Your task to perform on an android device: Show me recent news Image 0: 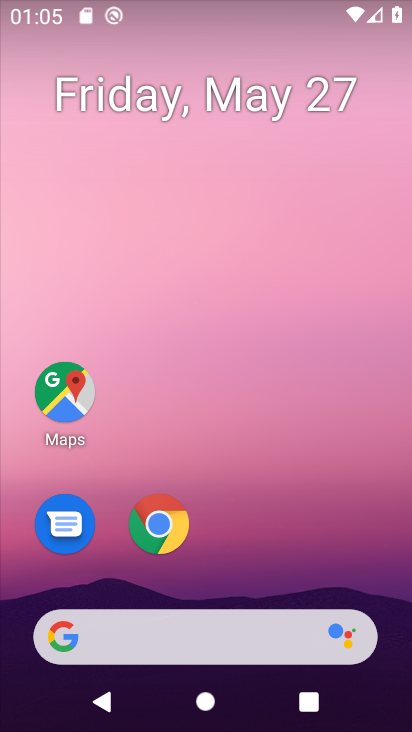
Step 0: click (265, 530)
Your task to perform on an android device: Show me recent news Image 1: 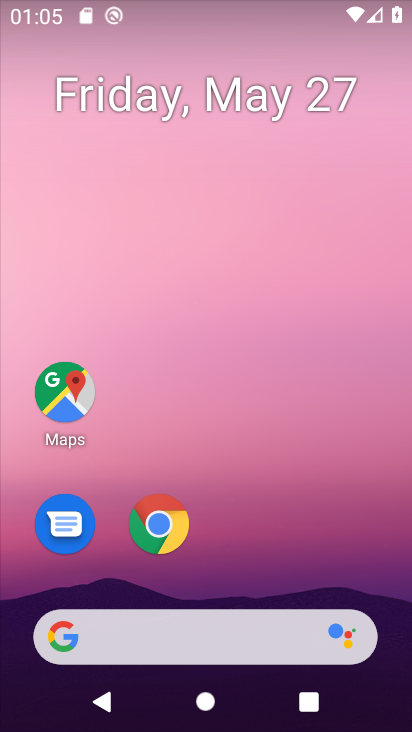
Step 1: click (251, 637)
Your task to perform on an android device: Show me recent news Image 2: 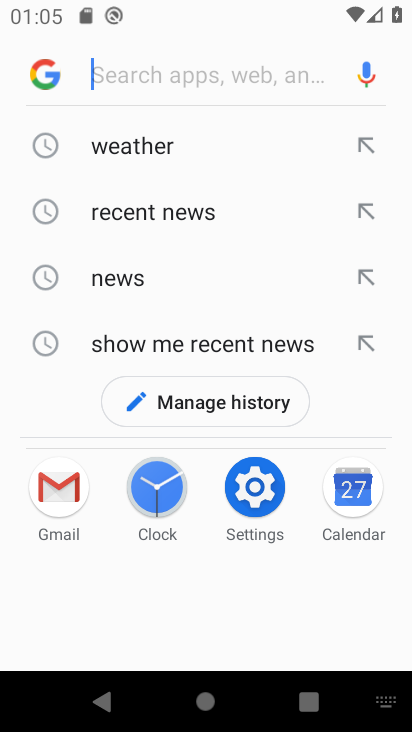
Step 2: click (96, 200)
Your task to perform on an android device: Show me recent news Image 3: 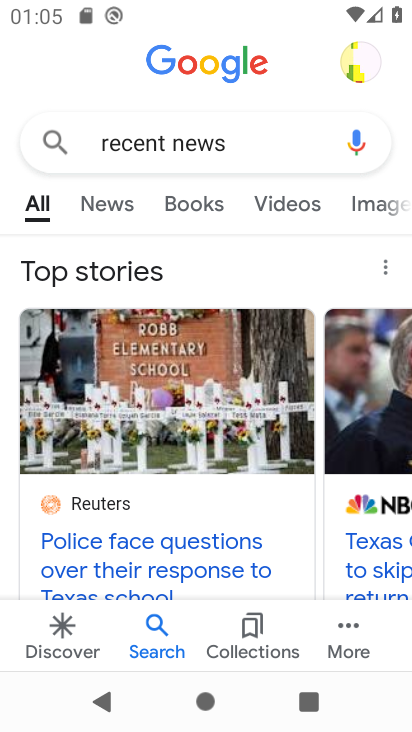
Step 3: click (101, 194)
Your task to perform on an android device: Show me recent news Image 4: 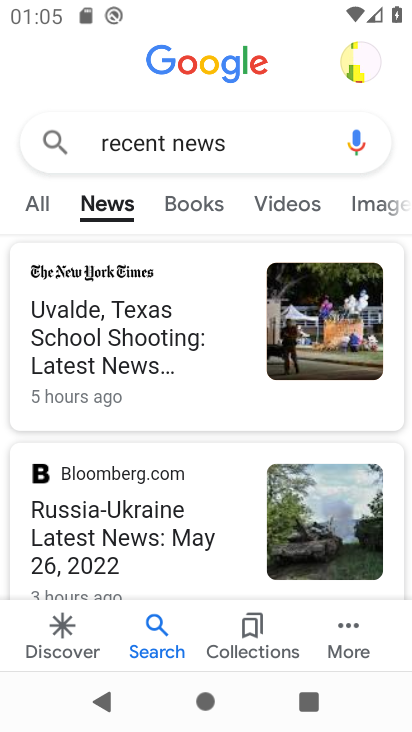
Step 4: task complete